Your task to perform on an android device: Open the web browser Image 0: 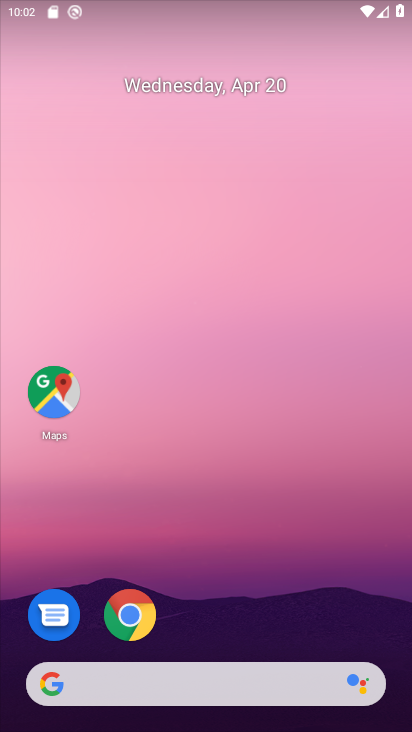
Step 0: drag from (346, 484) to (327, 124)
Your task to perform on an android device: Open the web browser Image 1: 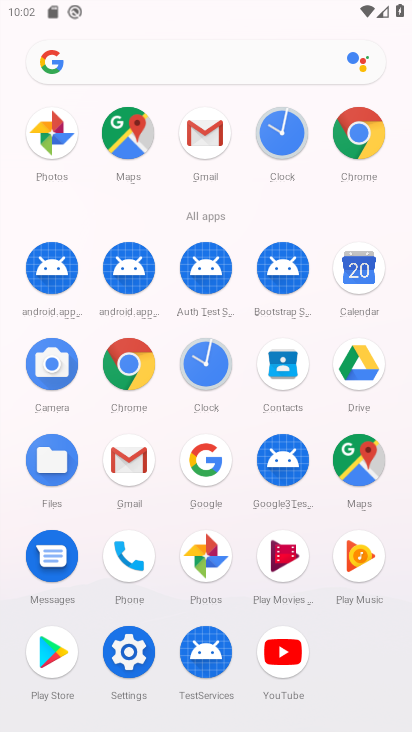
Step 1: click (138, 368)
Your task to perform on an android device: Open the web browser Image 2: 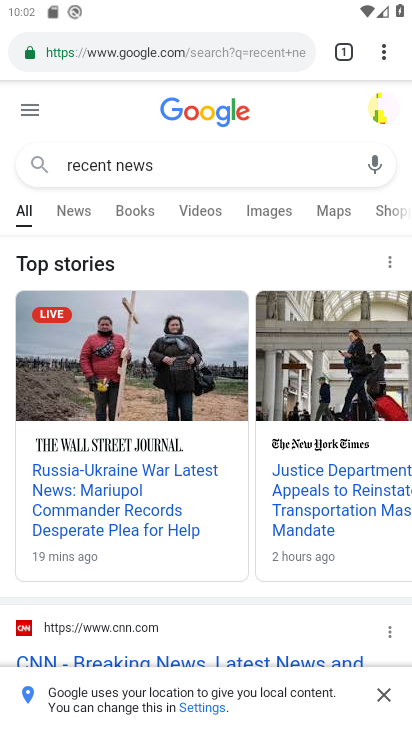
Step 2: task complete